Your task to perform on an android device: Go to Google Image 0: 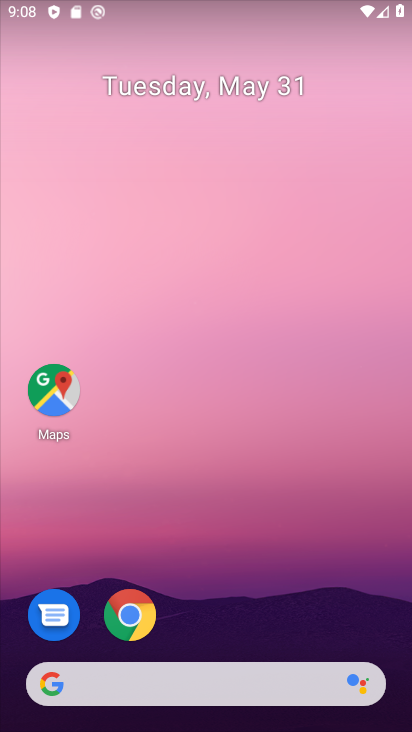
Step 0: drag from (301, 612) to (284, 110)
Your task to perform on an android device: Go to Google Image 1: 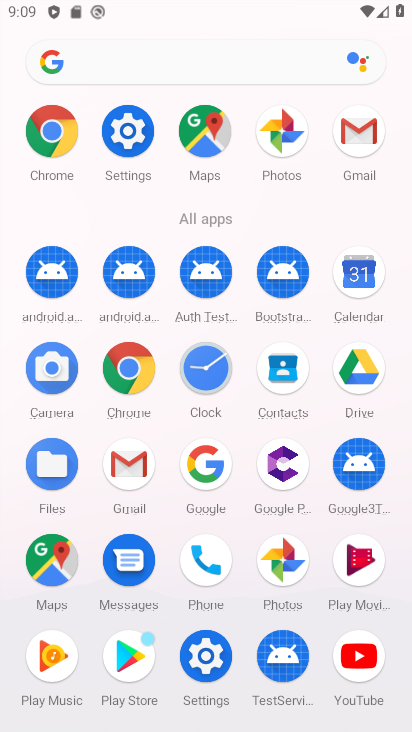
Step 1: click (202, 454)
Your task to perform on an android device: Go to Google Image 2: 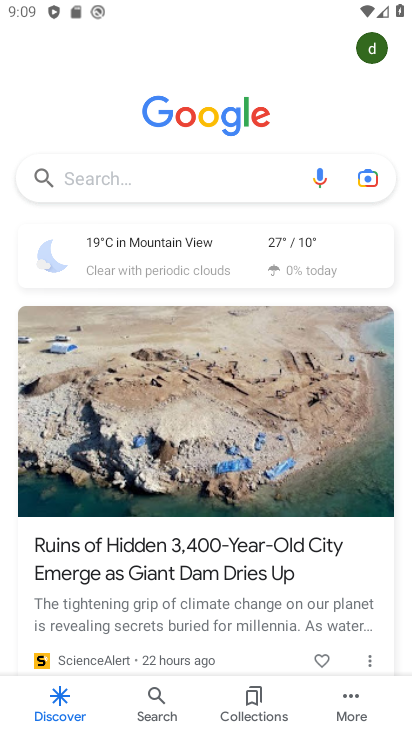
Step 2: press home button
Your task to perform on an android device: Go to Google Image 3: 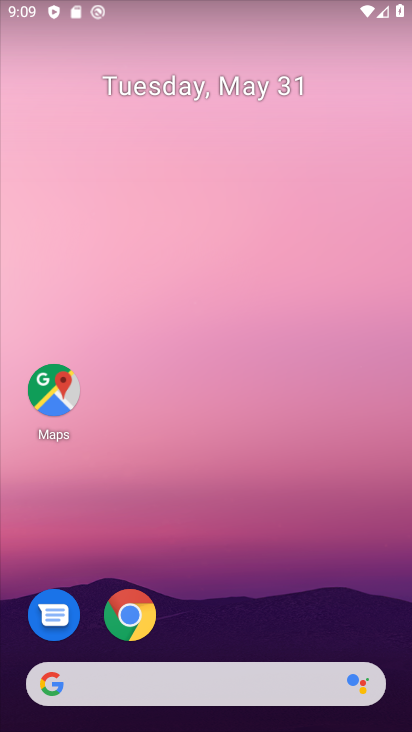
Step 3: drag from (324, 510) to (370, 101)
Your task to perform on an android device: Go to Google Image 4: 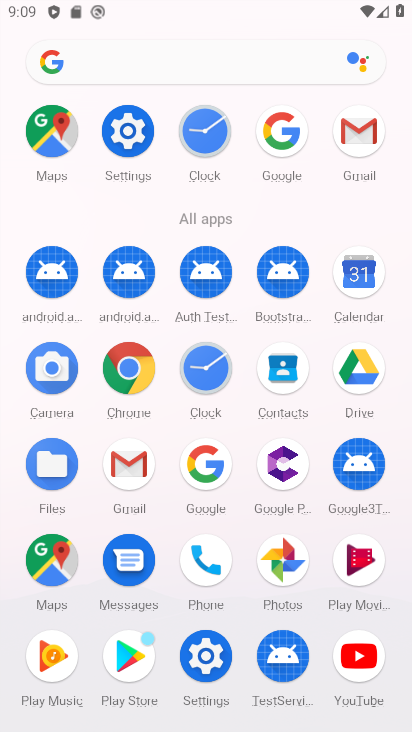
Step 4: click (281, 131)
Your task to perform on an android device: Go to Google Image 5: 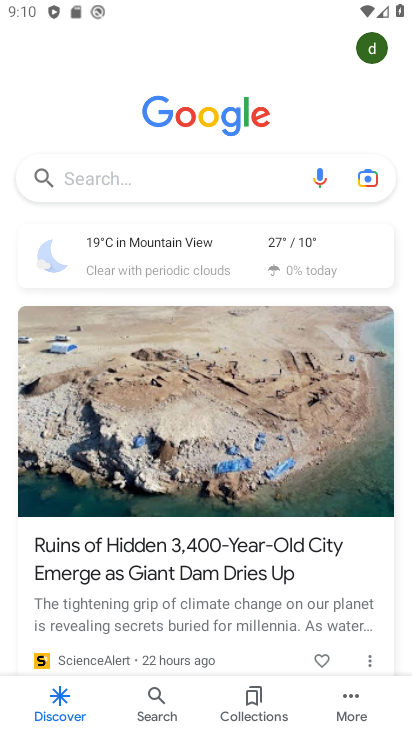
Step 5: task complete